Your task to perform on an android device: Open location settings Image 0: 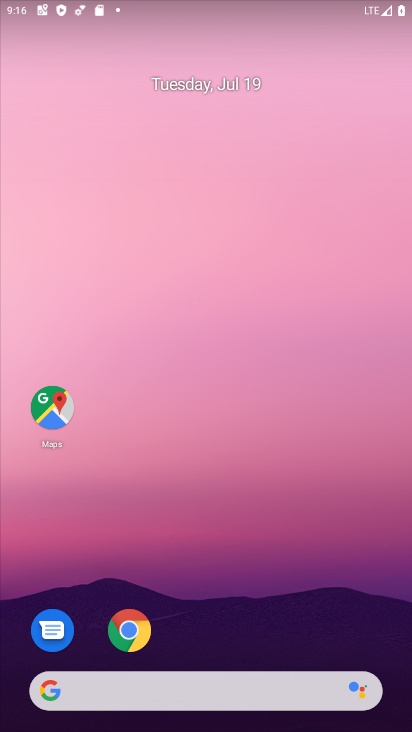
Step 0: drag from (172, 503) to (309, 27)
Your task to perform on an android device: Open location settings Image 1: 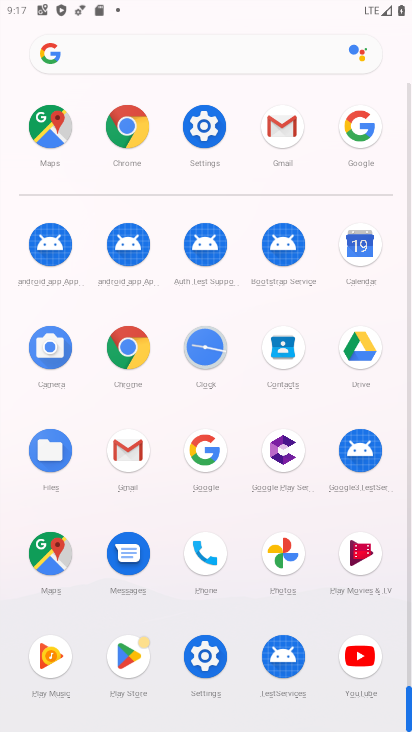
Step 1: drag from (175, 469) to (199, 112)
Your task to perform on an android device: Open location settings Image 2: 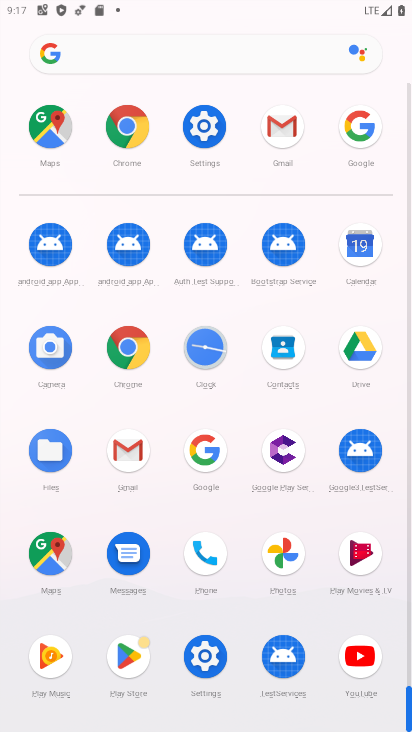
Step 2: click (211, 667)
Your task to perform on an android device: Open location settings Image 3: 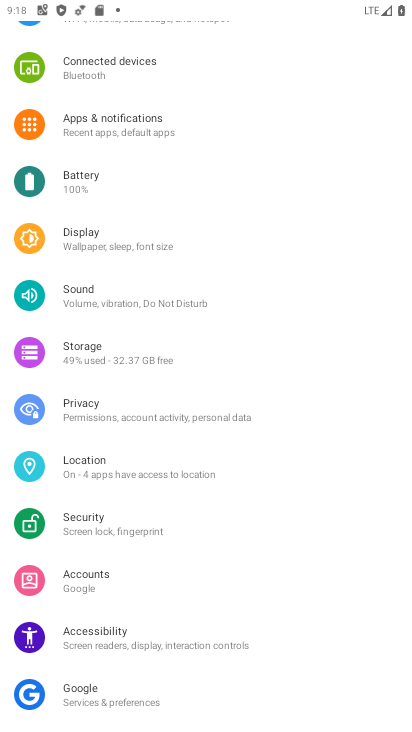
Step 3: drag from (146, 249) to (183, 175)
Your task to perform on an android device: Open location settings Image 4: 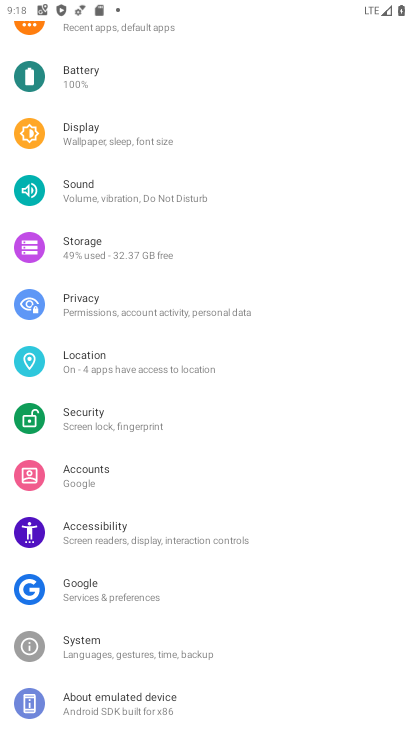
Step 4: click (145, 376)
Your task to perform on an android device: Open location settings Image 5: 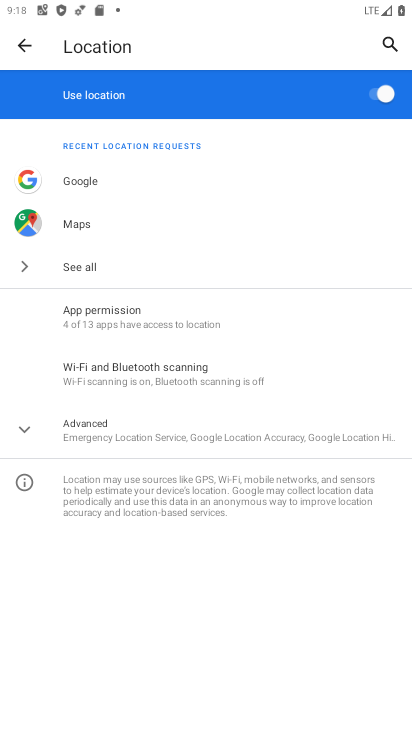
Step 5: task complete